Your task to perform on an android device: change the clock display to show seconds Image 0: 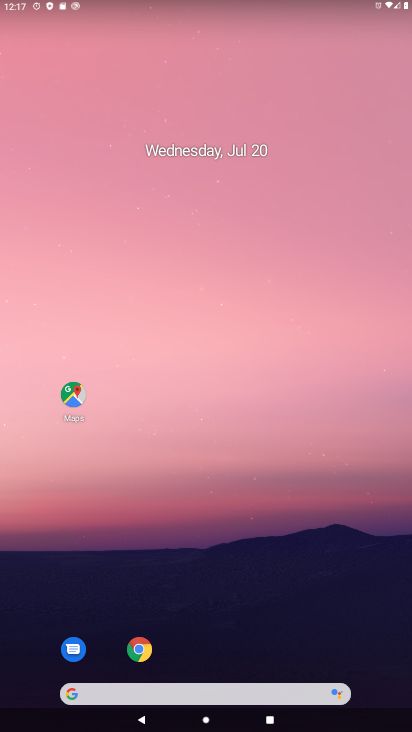
Step 0: drag from (228, 727) to (215, 459)
Your task to perform on an android device: change the clock display to show seconds Image 1: 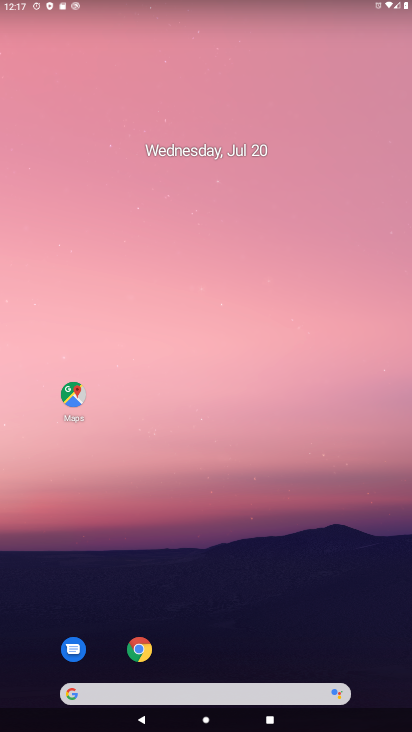
Step 1: drag from (243, 689) to (243, 232)
Your task to perform on an android device: change the clock display to show seconds Image 2: 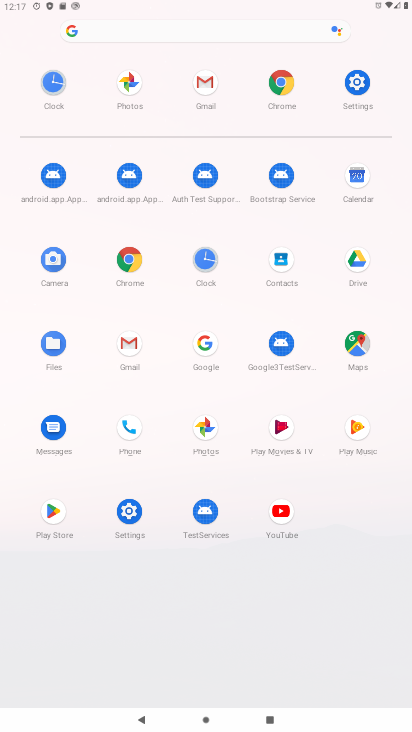
Step 2: click (203, 260)
Your task to perform on an android device: change the clock display to show seconds Image 3: 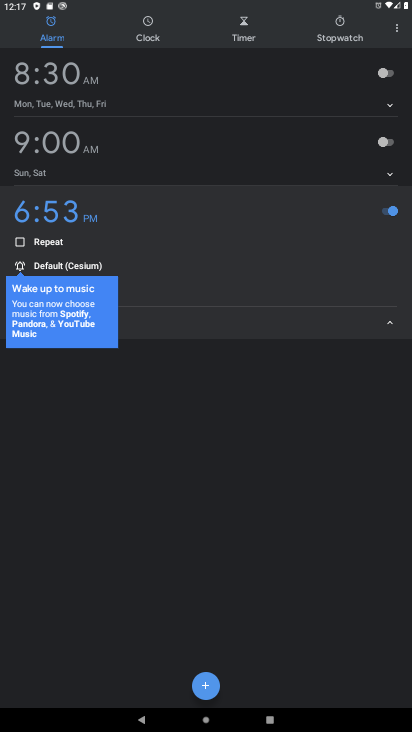
Step 3: click (398, 32)
Your task to perform on an android device: change the clock display to show seconds Image 4: 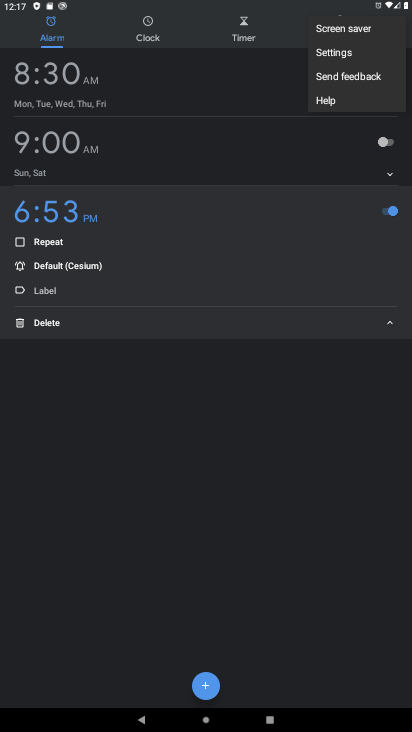
Step 4: click (343, 56)
Your task to perform on an android device: change the clock display to show seconds Image 5: 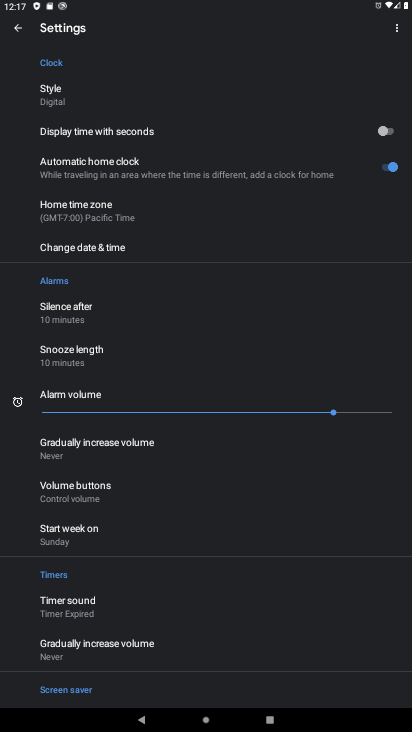
Step 5: click (393, 129)
Your task to perform on an android device: change the clock display to show seconds Image 6: 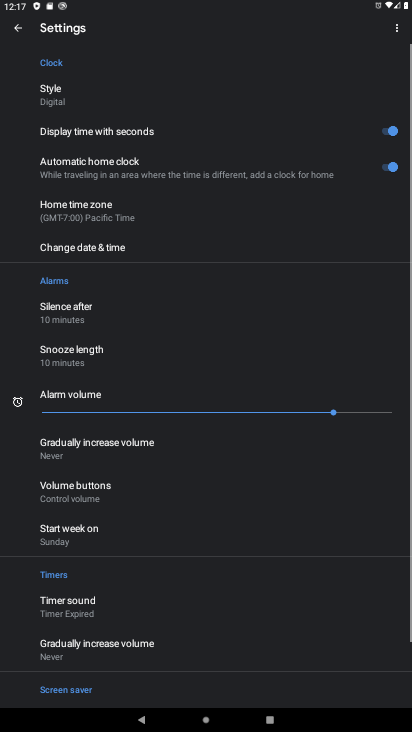
Step 6: task complete